Your task to perform on an android device: change notifications settings Image 0: 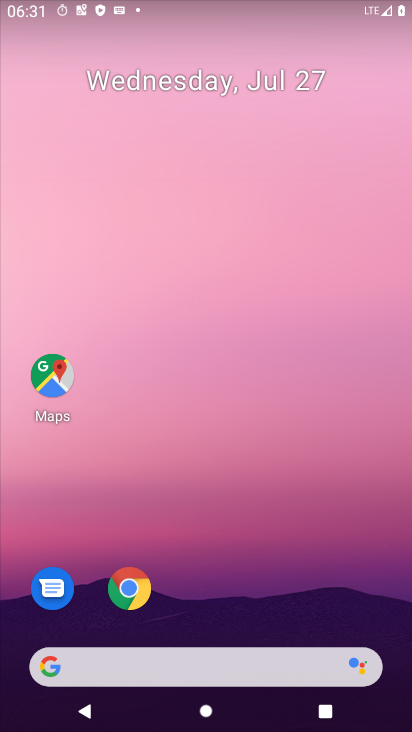
Step 0: drag from (309, 616) to (286, 47)
Your task to perform on an android device: change notifications settings Image 1: 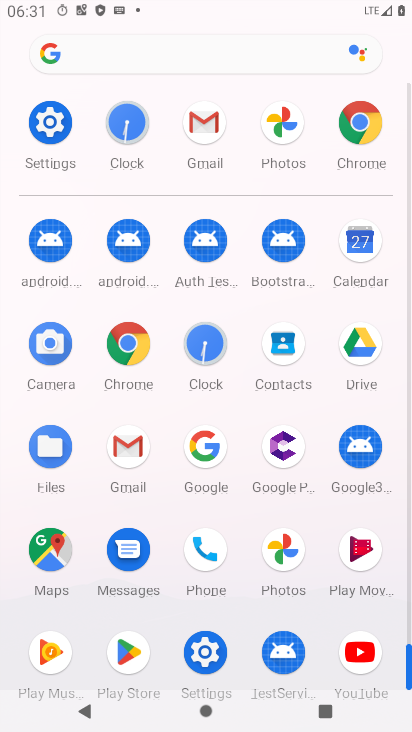
Step 1: click (54, 124)
Your task to perform on an android device: change notifications settings Image 2: 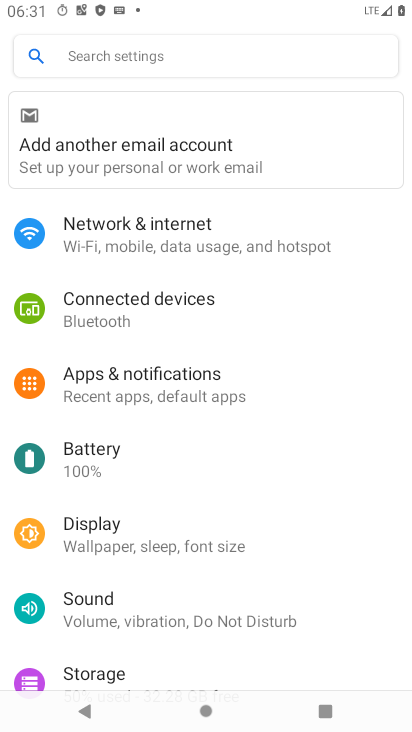
Step 2: click (191, 378)
Your task to perform on an android device: change notifications settings Image 3: 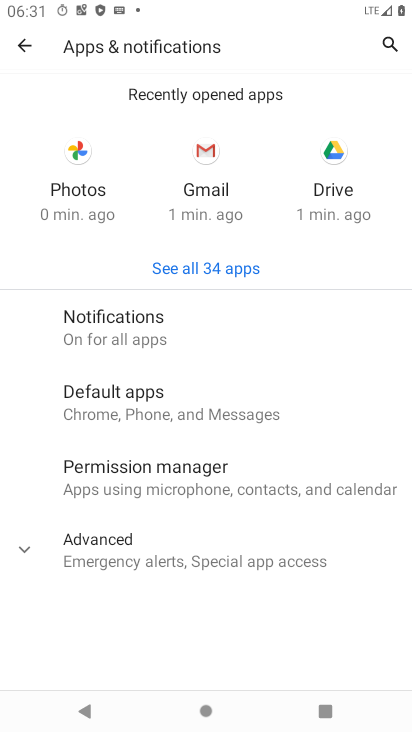
Step 3: click (171, 328)
Your task to perform on an android device: change notifications settings Image 4: 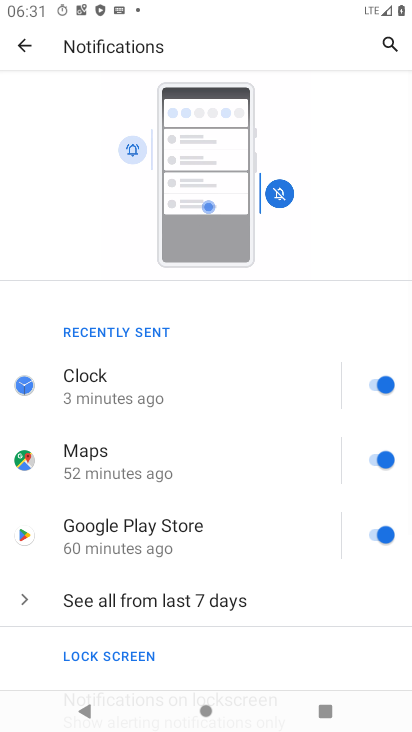
Step 4: click (382, 383)
Your task to perform on an android device: change notifications settings Image 5: 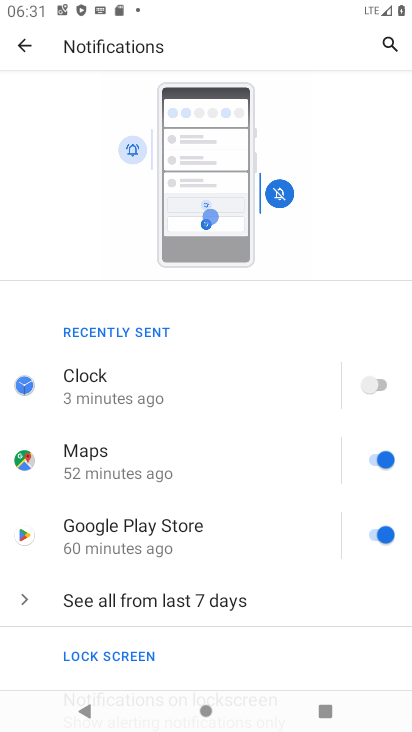
Step 5: task complete